Your task to perform on an android device: toggle notification dots Image 0: 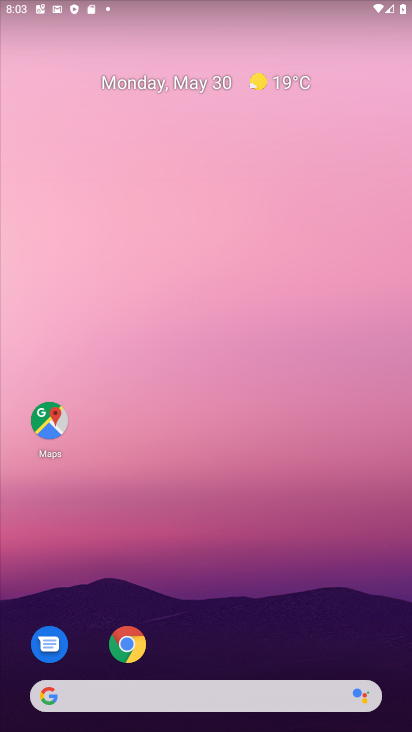
Step 0: drag from (187, 371) to (212, 146)
Your task to perform on an android device: toggle notification dots Image 1: 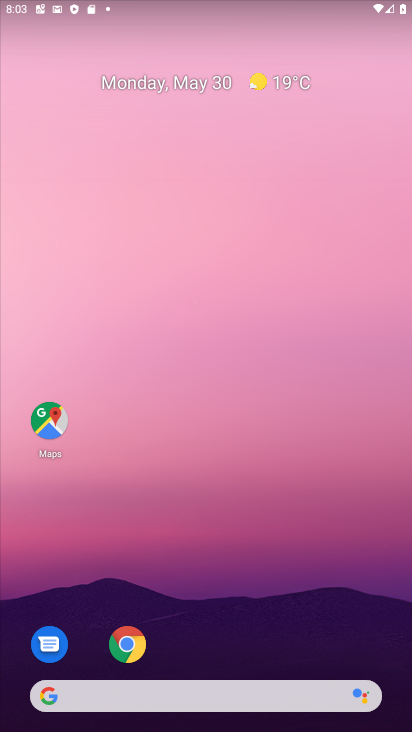
Step 1: drag from (193, 603) to (236, 3)
Your task to perform on an android device: toggle notification dots Image 2: 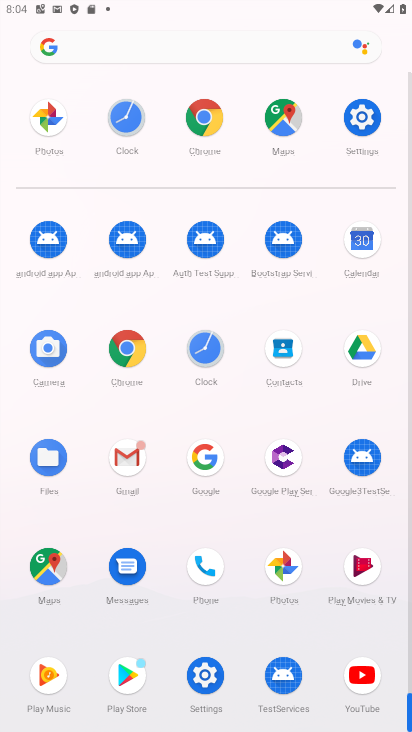
Step 2: click (367, 119)
Your task to perform on an android device: toggle notification dots Image 3: 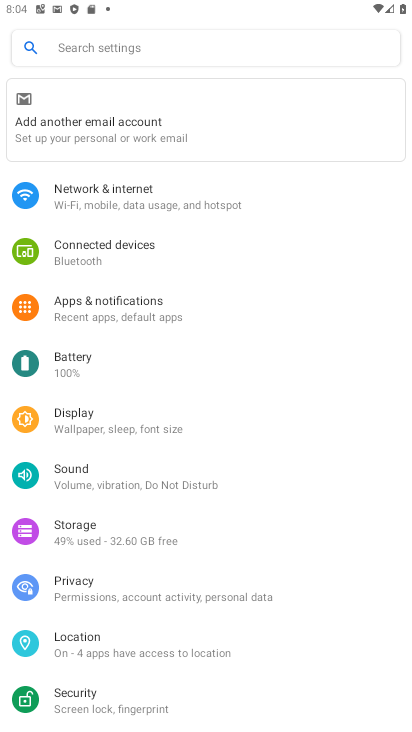
Step 3: click (127, 299)
Your task to perform on an android device: toggle notification dots Image 4: 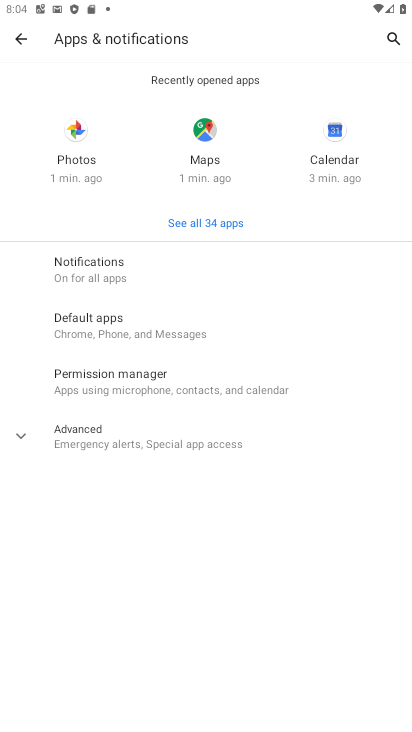
Step 4: click (155, 270)
Your task to perform on an android device: toggle notification dots Image 5: 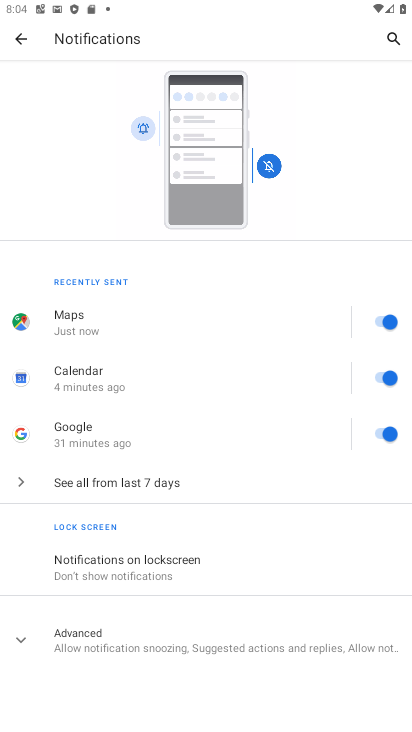
Step 5: click (109, 665)
Your task to perform on an android device: toggle notification dots Image 6: 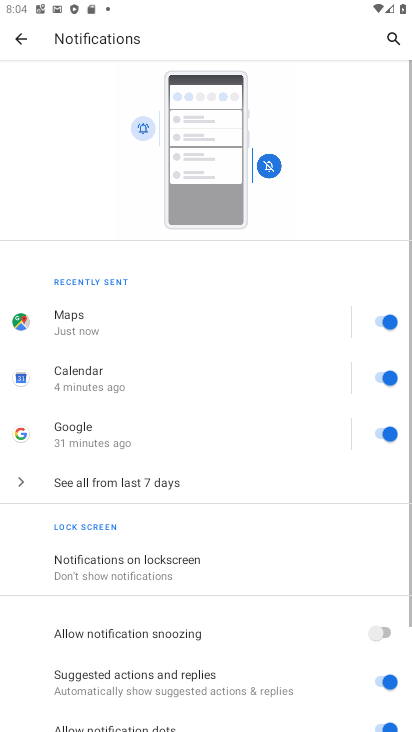
Step 6: drag from (183, 588) to (327, 141)
Your task to perform on an android device: toggle notification dots Image 7: 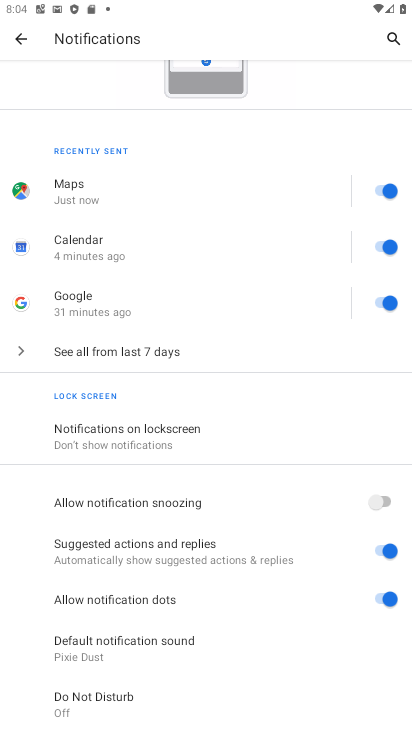
Step 7: click (384, 605)
Your task to perform on an android device: toggle notification dots Image 8: 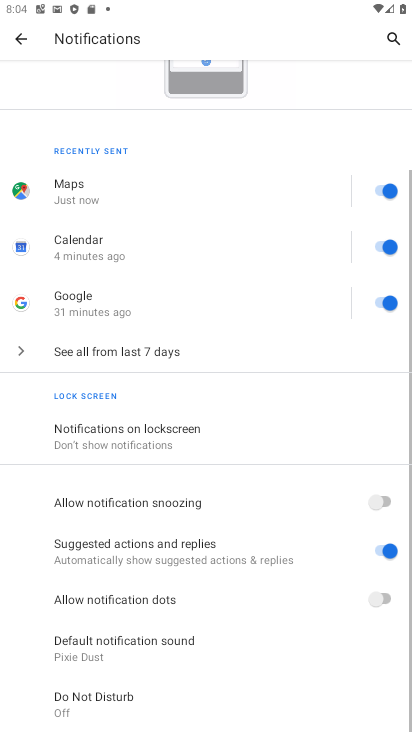
Step 8: task complete